Your task to perform on an android device: Open location settings Image 0: 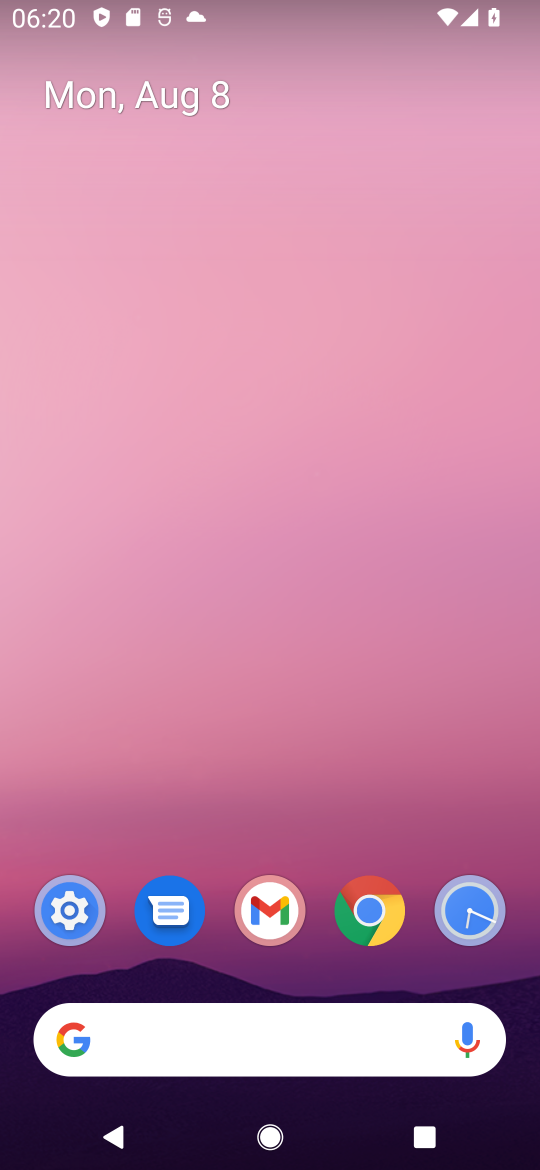
Step 0: click (71, 911)
Your task to perform on an android device: Open location settings Image 1: 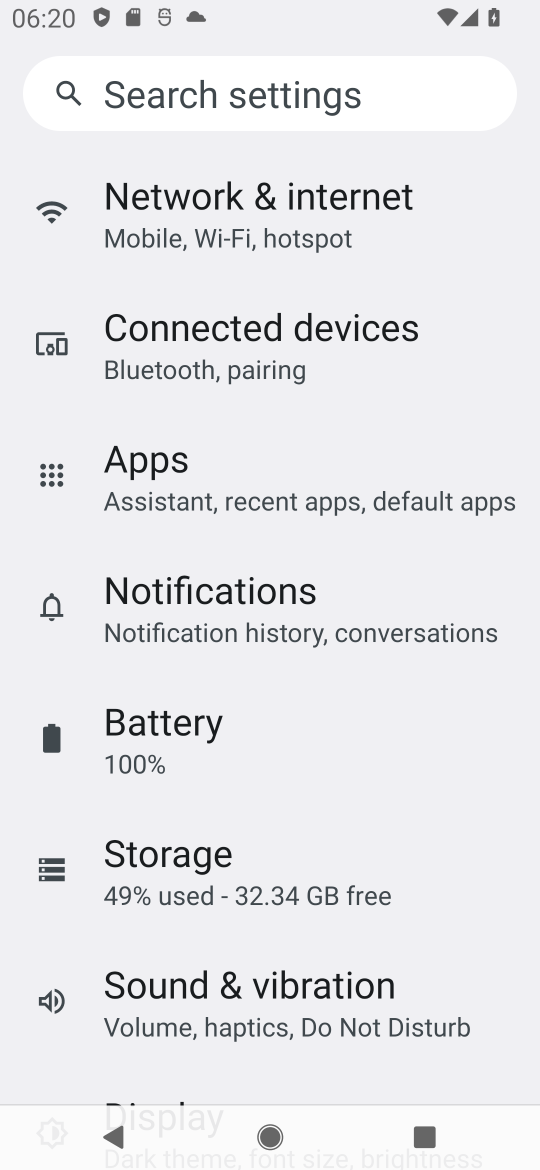
Step 1: drag from (194, 952) to (339, 785)
Your task to perform on an android device: Open location settings Image 2: 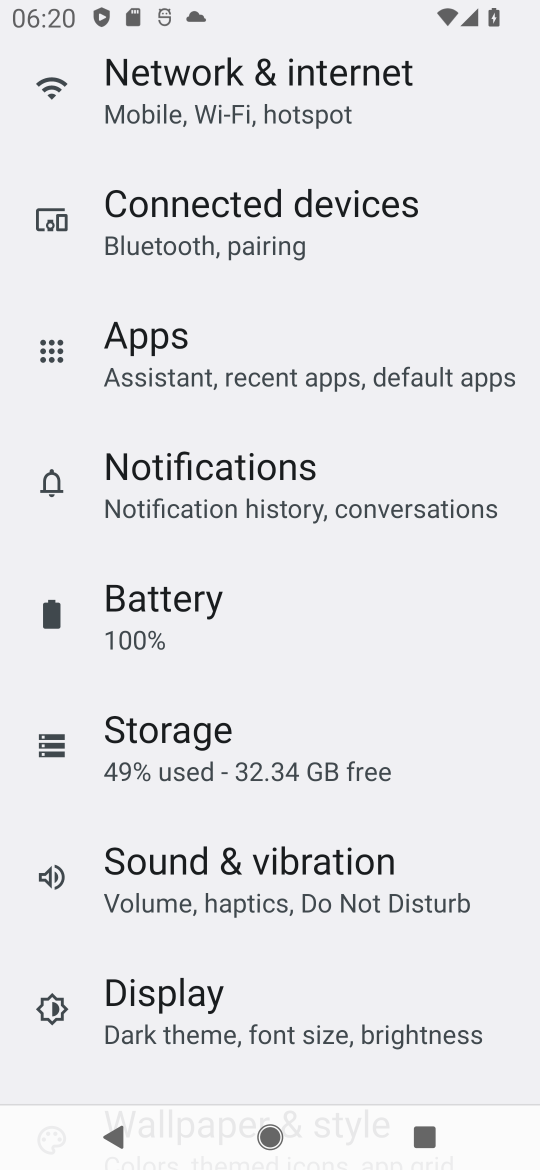
Step 2: drag from (228, 945) to (344, 694)
Your task to perform on an android device: Open location settings Image 3: 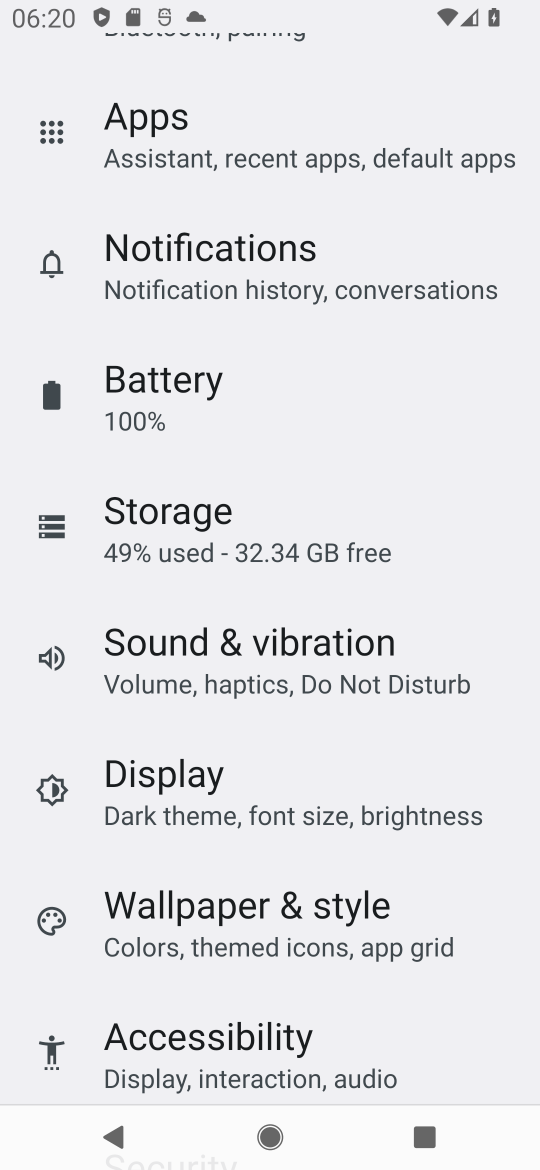
Step 3: drag from (240, 974) to (313, 812)
Your task to perform on an android device: Open location settings Image 4: 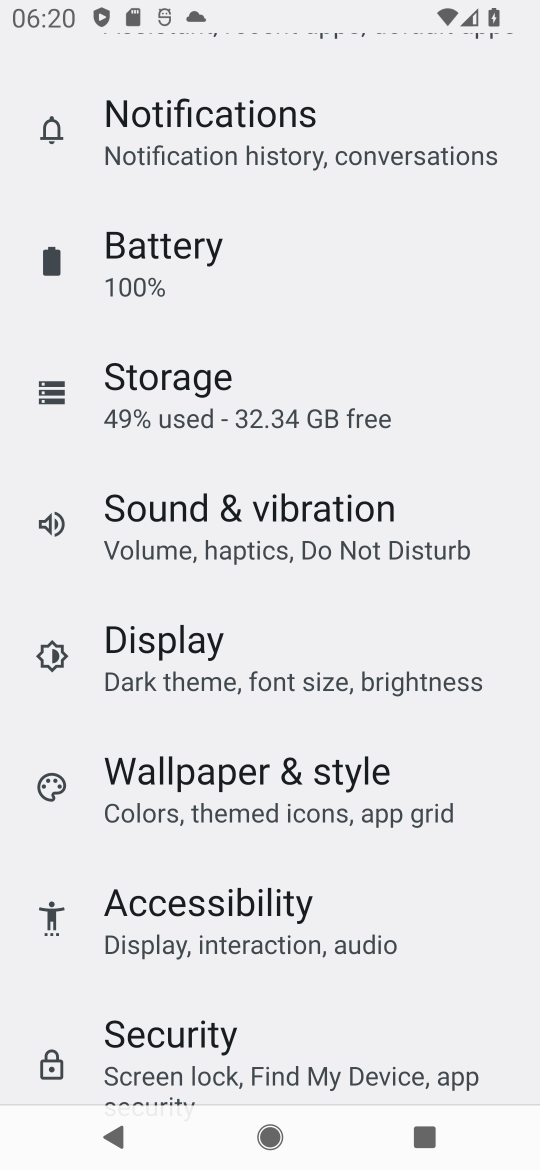
Step 4: drag from (263, 996) to (335, 843)
Your task to perform on an android device: Open location settings Image 5: 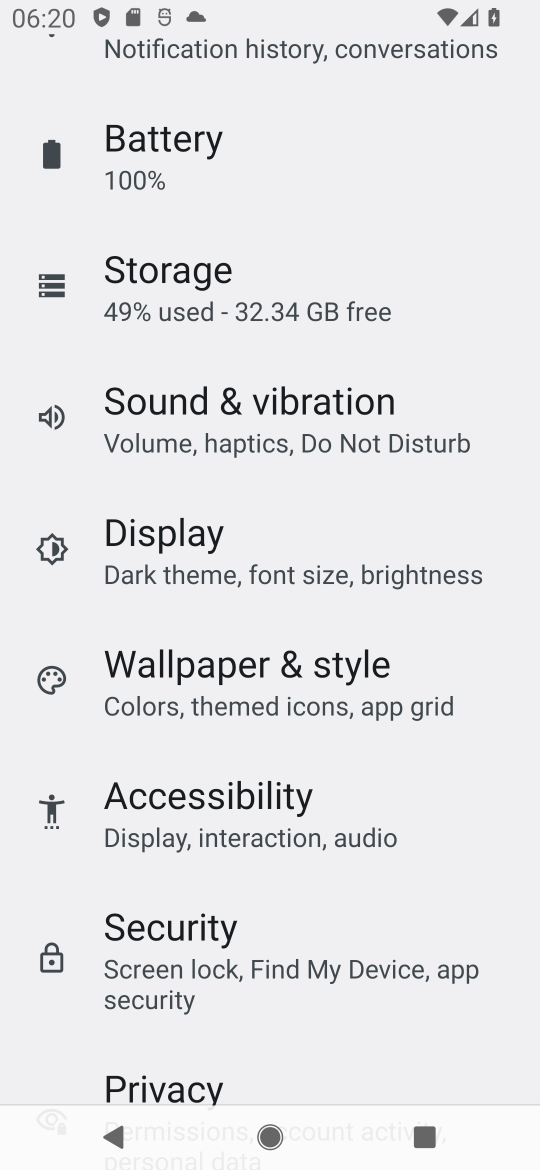
Step 5: drag from (248, 1030) to (387, 782)
Your task to perform on an android device: Open location settings Image 6: 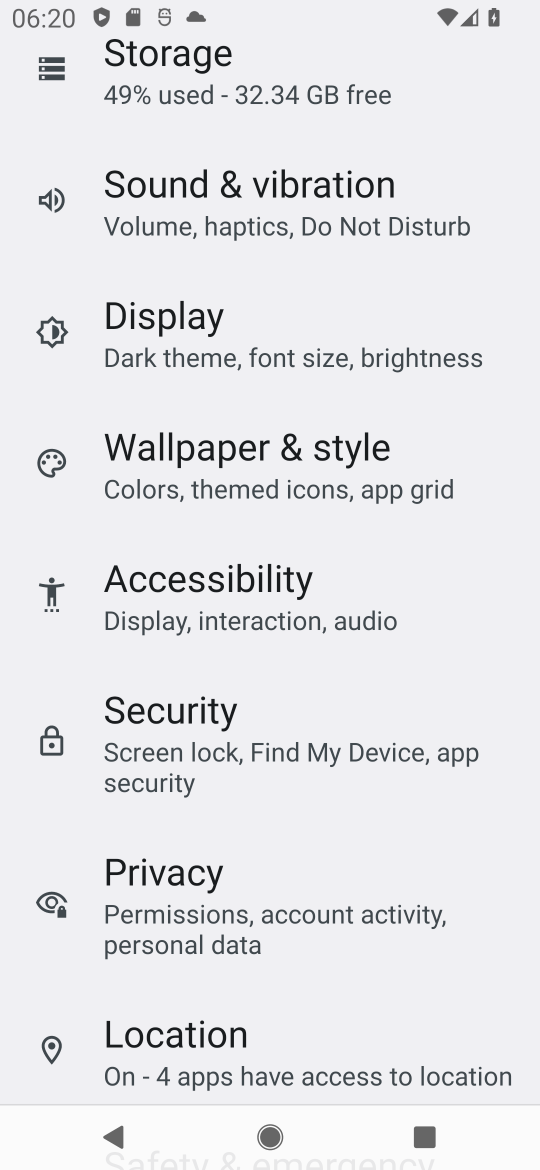
Step 6: drag from (276, 959) to (382, 725)
Your task to perform on an android device: Open location settings Image 7: 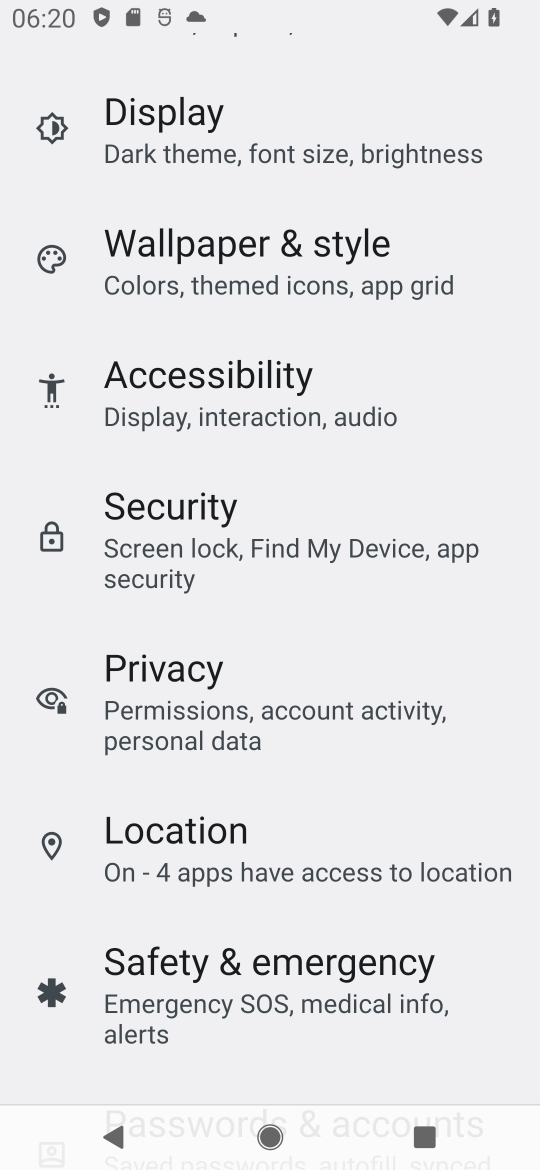
Step 7: click (227, 841)
Your task to perform on an android device: Open location settings Image 8: 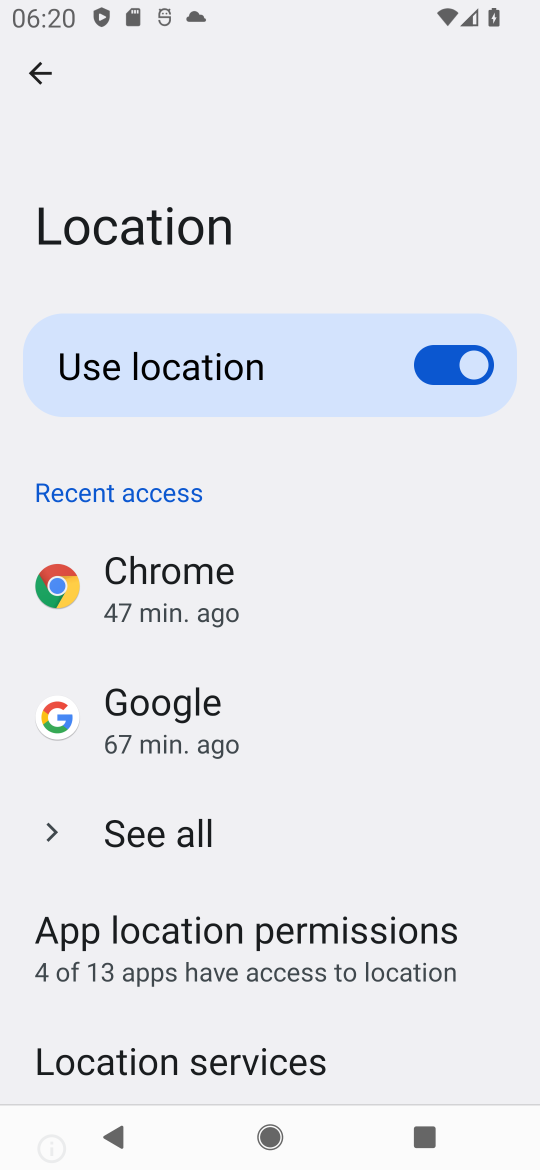
Step 8: task complete